Your task to perform on an android device: Create a new label 'do not share' in Gmail Image 0: 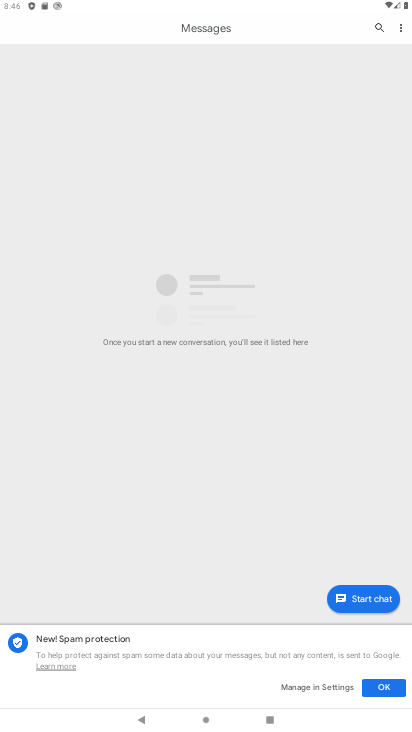
Step 0: press home button
Your task to perform on an android device: Create a new label 'do not share' in Gmail Image 1: 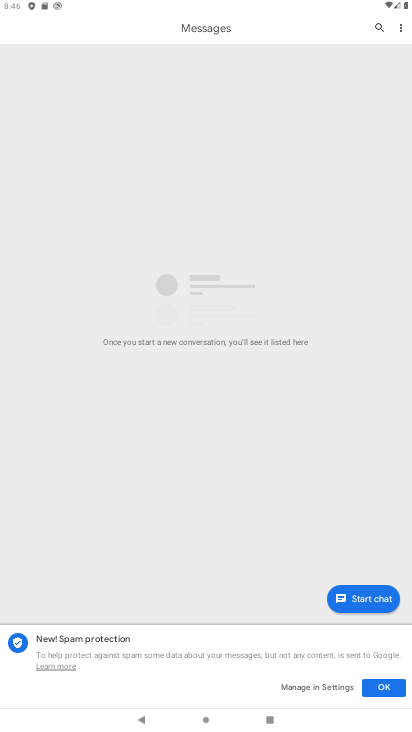
Step 1: drag from (251, 677) to (311, 2)
Your task to perform on an android device: Create a new label 'do not share' in Gmail Image 2: 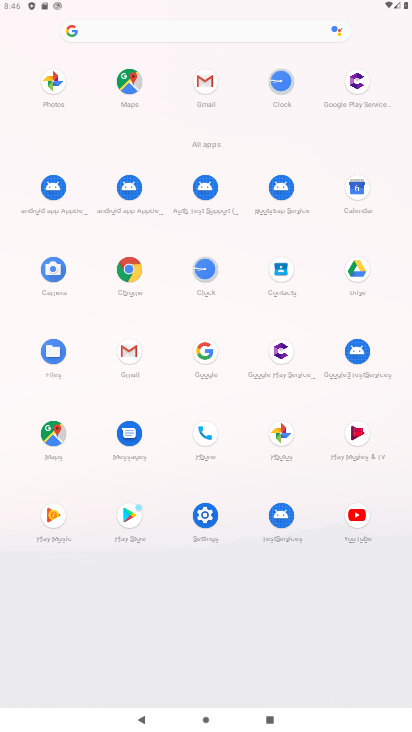
Step 2: click (206, 87)
Your task to perform on an android device: Create a new label 'do not share' in Gmail Image 3: 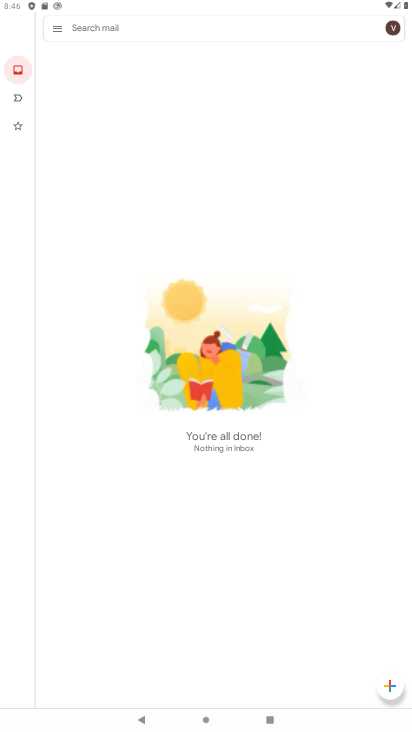
Step 3: task complete